Your task to perform on an android device: show emergency info Image 0: 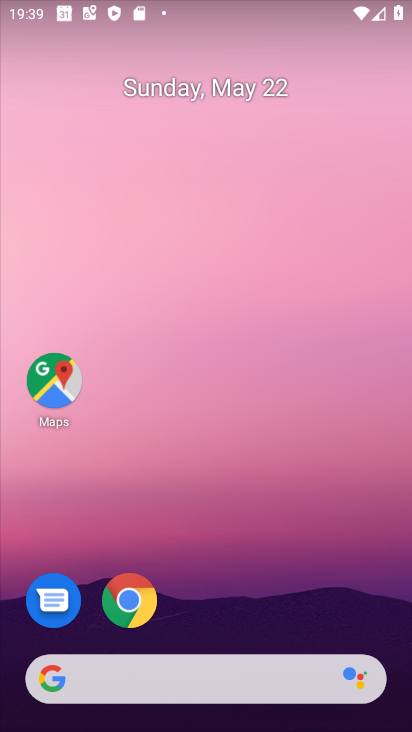
Step 0: drag from (275, 565) to (277, 43)
Your task to perform on an android device: show emergency info Image 1: 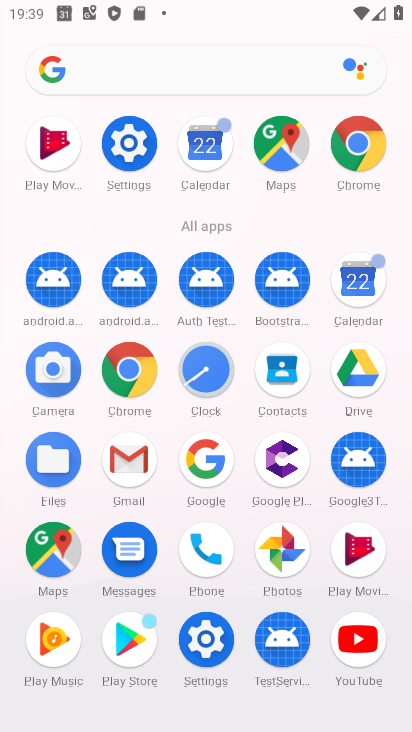
Step 1: drag from (13, 498) to (7, 182)
Your task to perform on an android device: show emergency info Image 2: 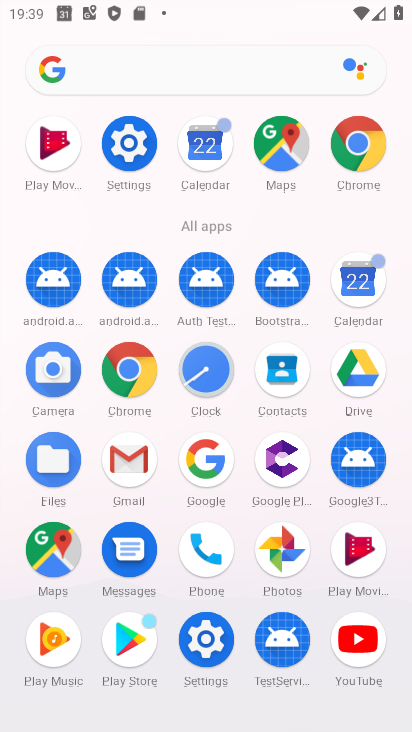
Step 2: click (205, 638)
Your task to perform on an android device: show emergency info Image 3: 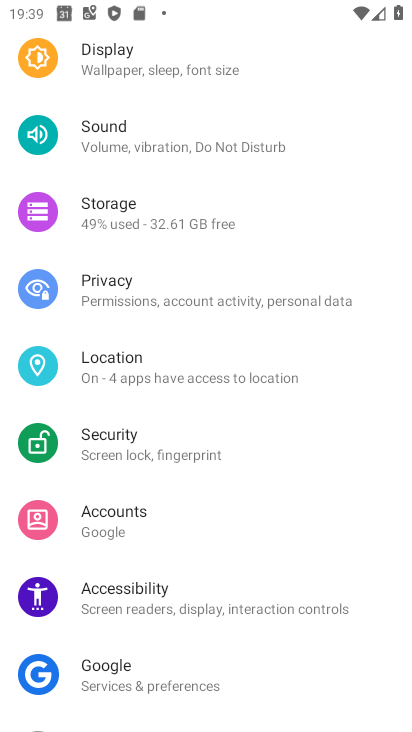
Step 3: drag from (264, 478) to (255, 73)
Your task to perform on an android device: show emergency info Image 4: 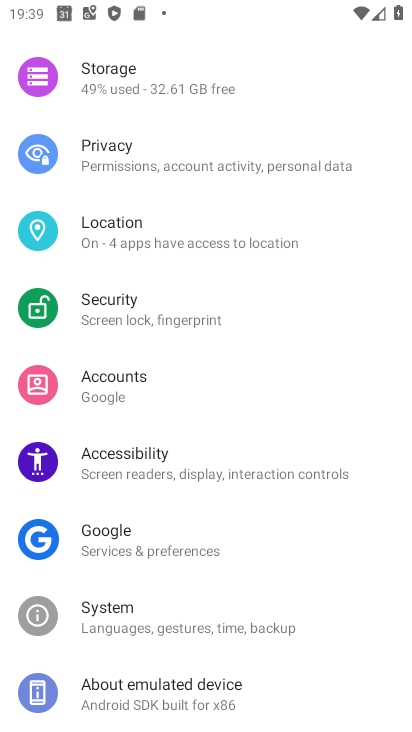
Step 4: drag from (232, 500) to (255, 103)
Your task to perform on an android device: show emergency info Image 5: 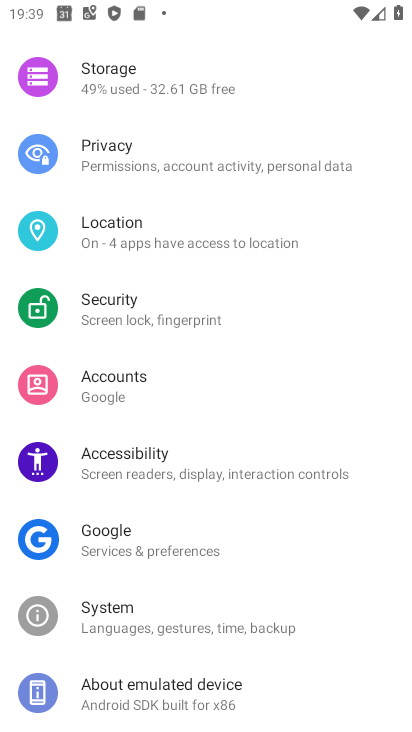
Step 5: click (155, 695)
Your task to perform on an android device: show emergency info Image 6: 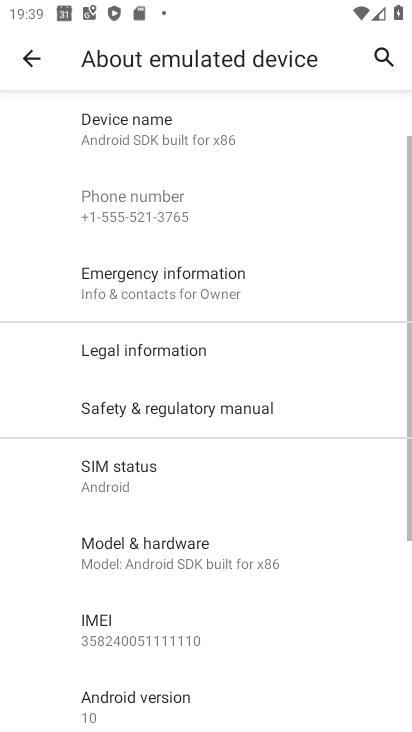
Step 6: task complete